Your task to perform on an android device: Open settings on Google Maps Image 0: 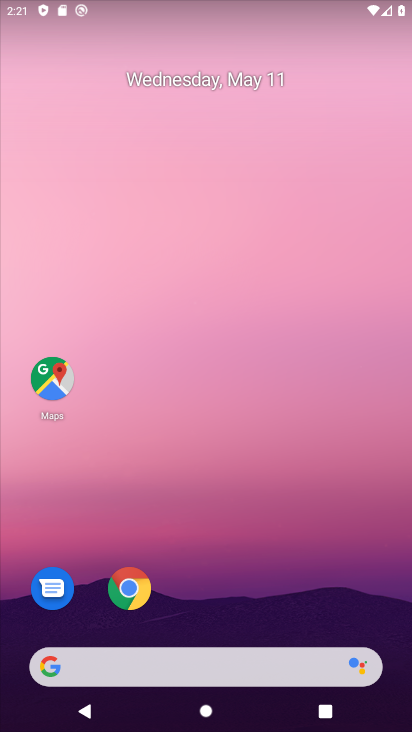
Step 0: drag from (248, 590) to (227, 74)
Your task to perform on an android device: Open settings on Google Maps Image 1: 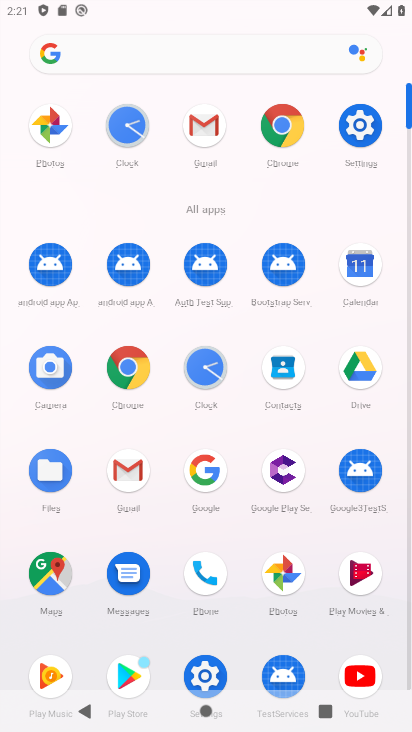
Step 1: click (47, 579)
Your task to perform on an android device: Open settings on Google Maps Image 2: 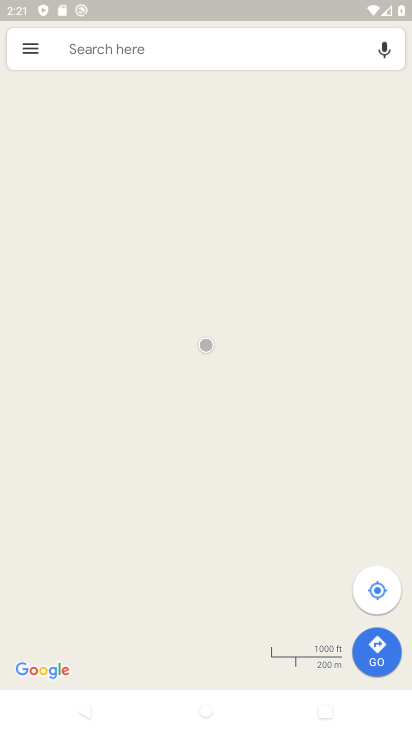
Step 2: click (22, 45)
Your task to perform on an android device: Open settings on Google Maps Image 3: 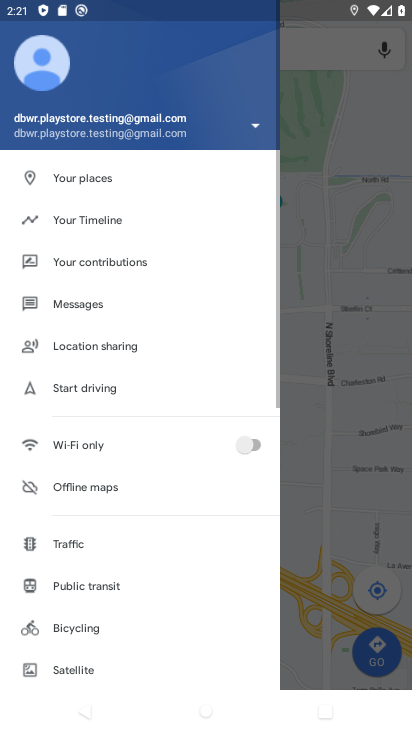
Step 3: drag from (167, 645) to (171, 232)
Your task to perform on an android device: Open settings on Google Maps Image 4: 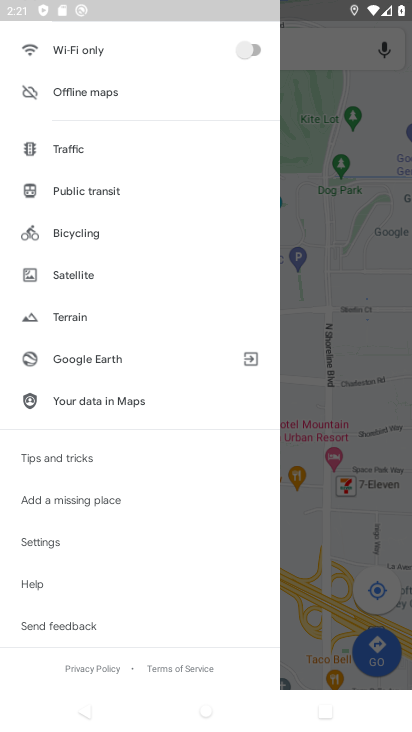
Step 4: click (27, 539)
Your task to perform on an android device: Open settings on Google Maps Image 5: 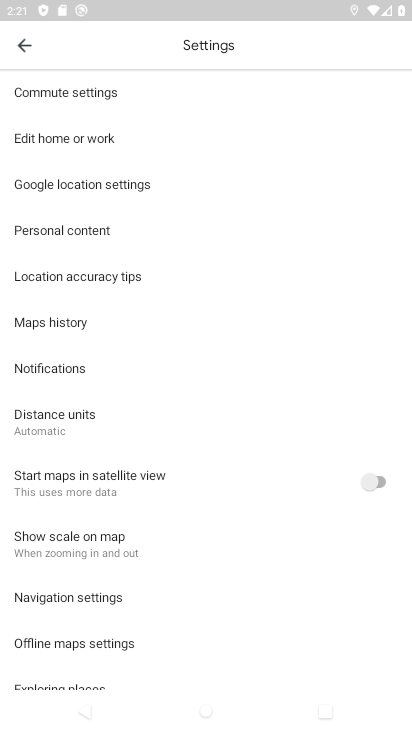
Step 5: task complete